Your task to perform on an android device: toggle pop-ups in chrome Image 0: 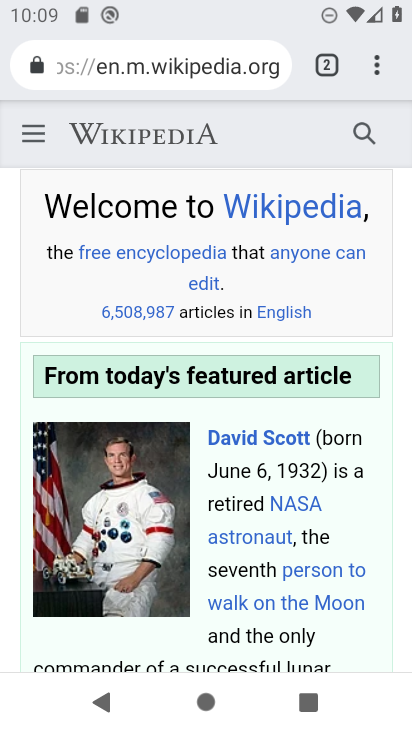
Step 0: drag from (374, 61) to (179, 589)
Your task to perform on an android device: toggle pop-ups in chrome Image 1: 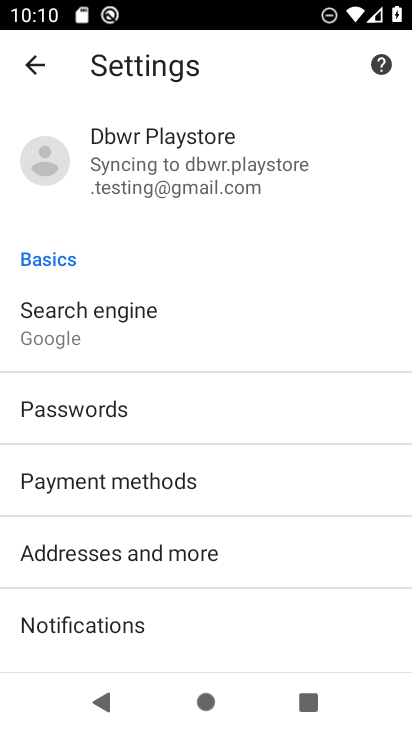
Step 1: drag from (162, 573) to (292, 172)
Your task to perform on an android device: toggle pop-ups in chrome Image 2: 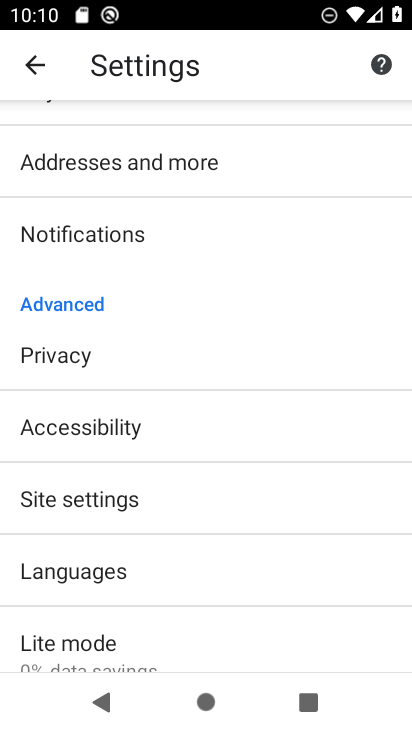
Step 2: click (101, 492)
Your task to perform on an android device: toggle pop-ups in chrome Image 3: 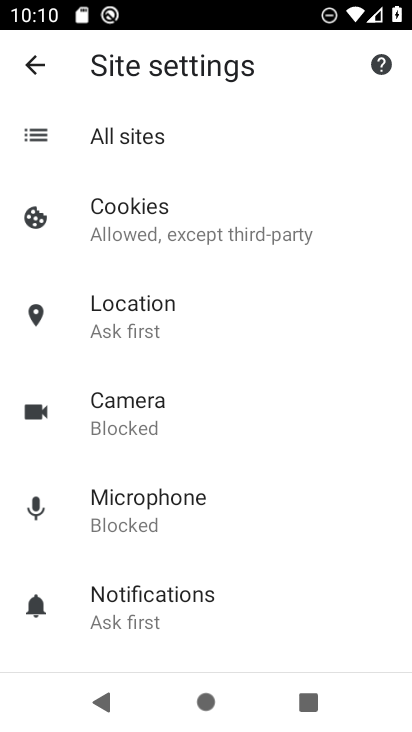
Step 3: drag from (145, 613) to (269, 175)
Your task to perform on an android device: toggle pop-ups in chrome Image 4: 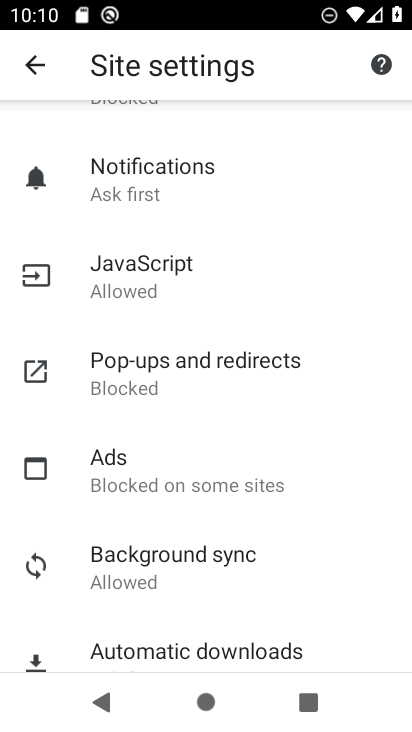
Step 4: click (212, 374)
Your task to perform on an android device: toggle pop-ups in chrome Image 5: 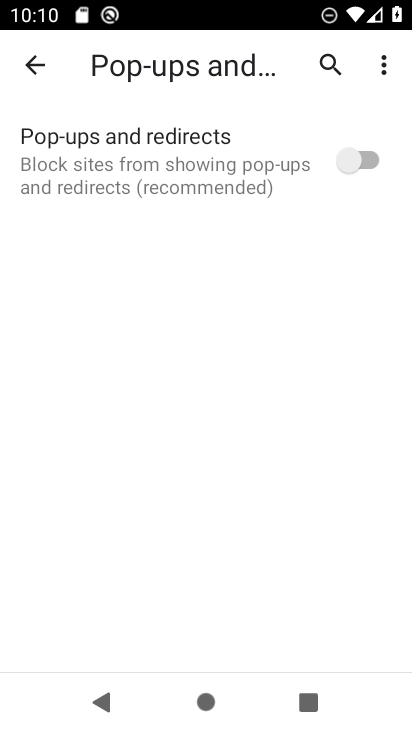
Step 5: click (360, 153)
Your task to perform on an android device: toggle pop-ups in chrome Image 6: 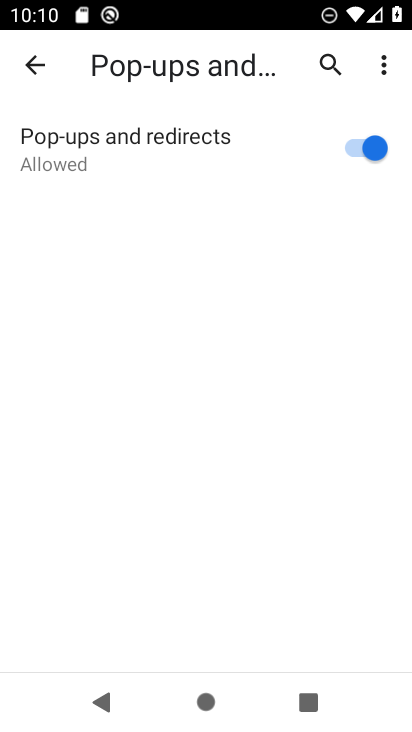
Step 6: task complete